Your task to perform on an android device: Open CNN.com Image 0: 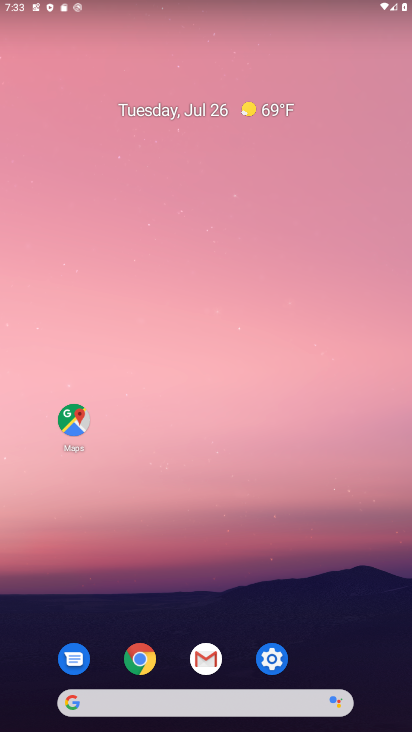
Step 0: click (134, 660)
Your task to perform on an android device: Open CNN.com Image 1: 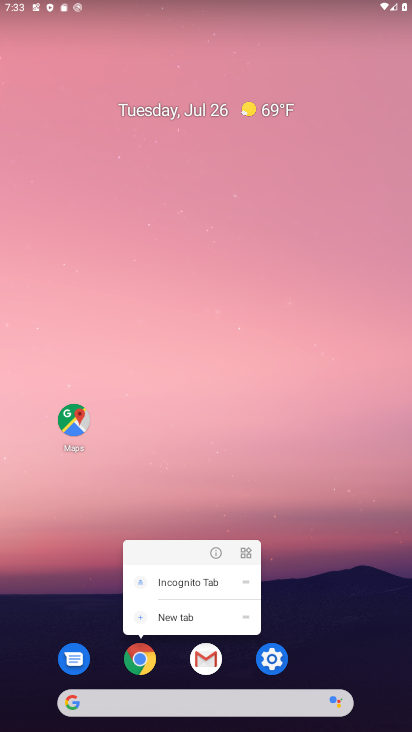
Step 1: click (144, 666)
Your task to perform on an android device: Open CNN.com Image 2: 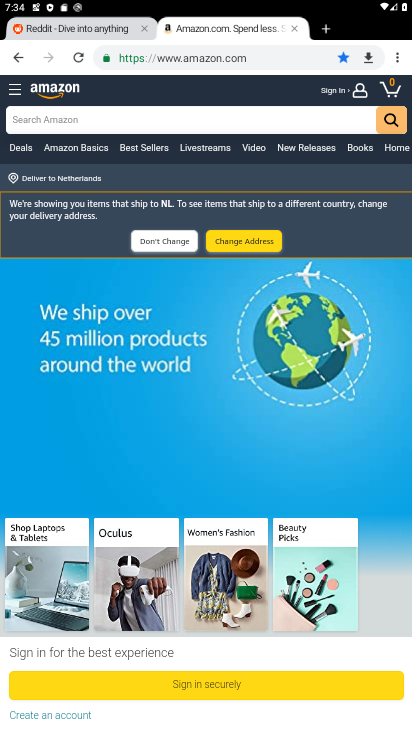
Step 2: click (322, 34)
Your task to perform on an android device: Open CNN.com Image 3: 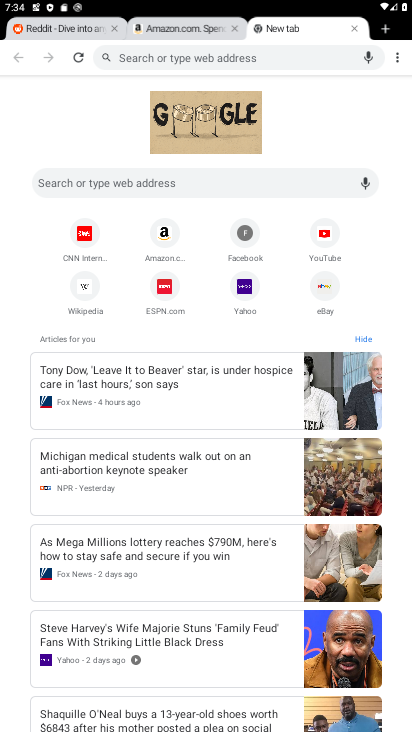
Step 3: click (144, 58)
Your task to perform on an android device: Open CNN.com Image 4: 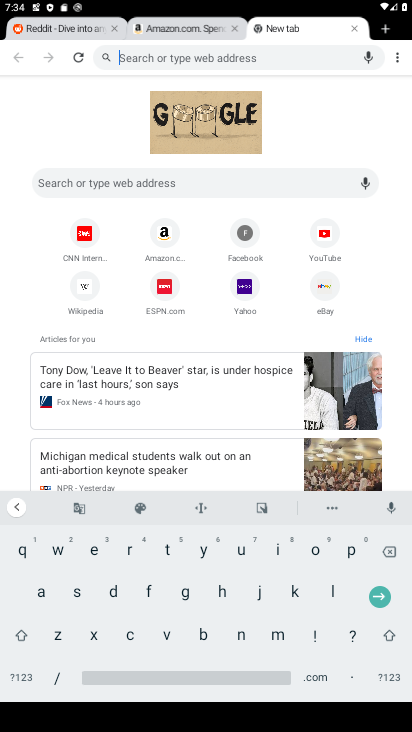
Step 4: click (124, 638)
Your task to perform on an android device: Open CNN.com Image 5: 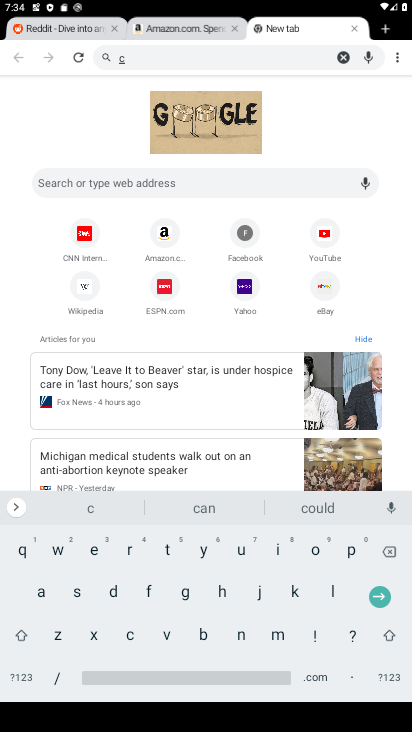
Step 5: click (239, 630)
Your task to perform on an android device: Open CNN.com Image 6: 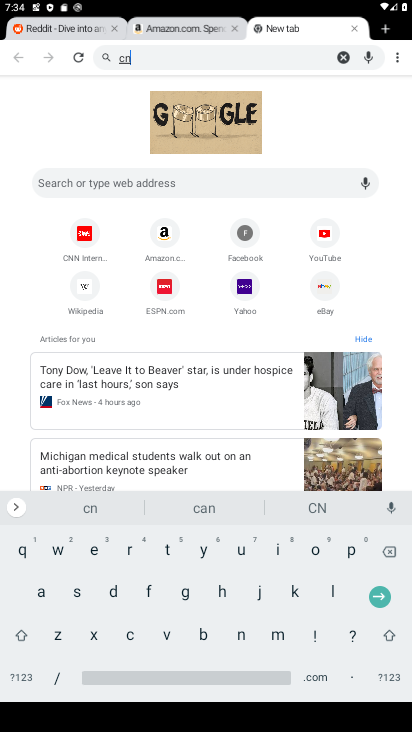
Step 6: click (239, 630)
Your task to perform on an android device: Open CNN.com Image 7: 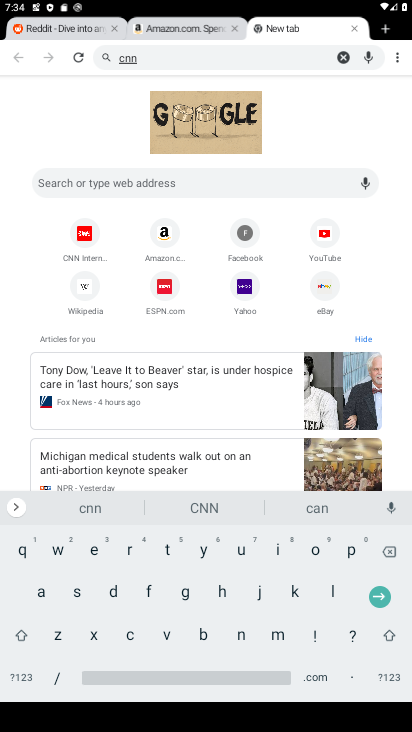
Step 7: click (380, 599)
Your task to perform on an android device: Open CNN.com Image 8: 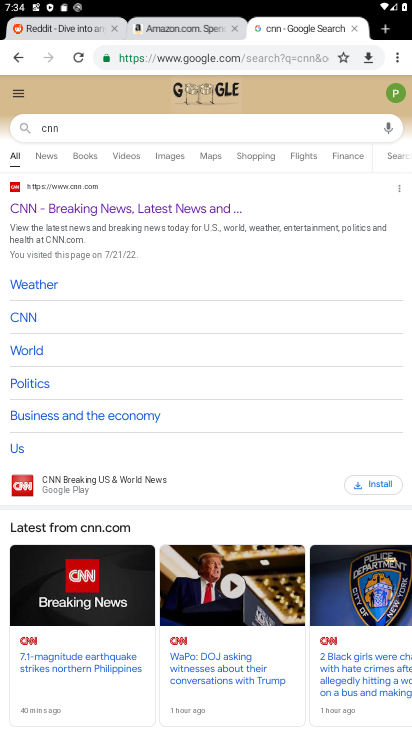
Step 8: click (131, 211)
Your task to perform on an android device: Open CNN.com Image 9: 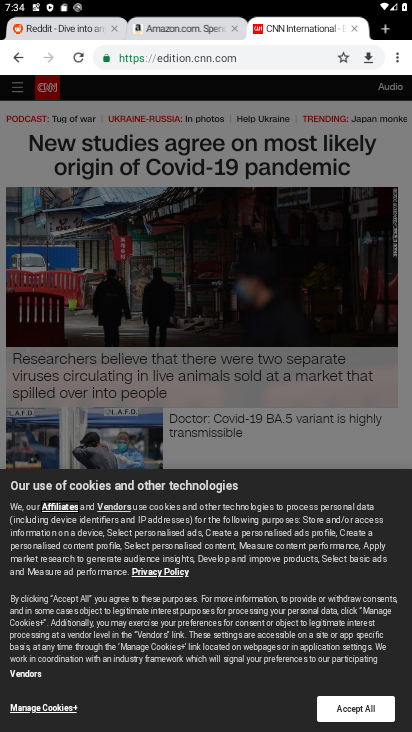
Step 9: click (345, 709)
Your task to perform on an android device: Open CNN.com Image 10: 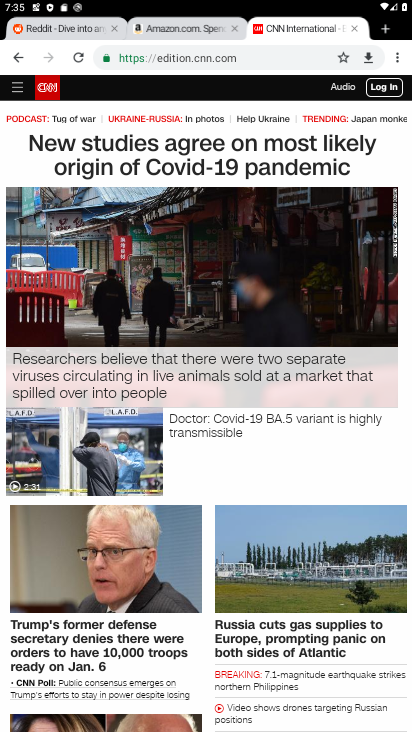
Step 10: task complete